Your task to perform on an android device: toggle data saver in the chrome app Image 0: 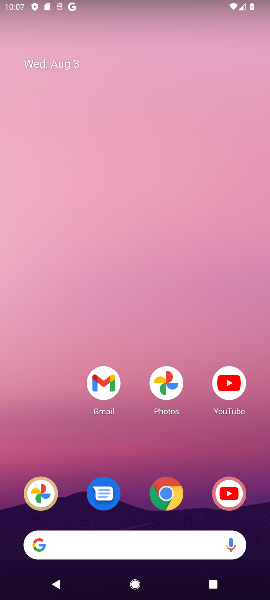
Step 0: press home button
Your task to perform on an android device: toggle data saver in the chrome app Image 1: 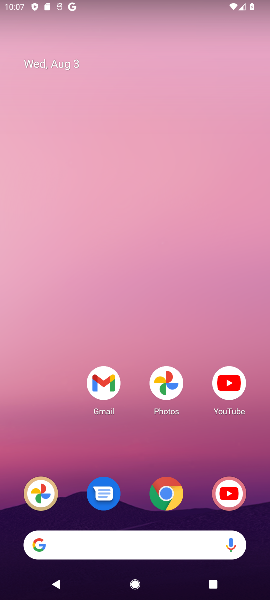
Step 1: click (169, 487)
Your task to perform on an android device: toggle data saver in the chrome app Image 2: 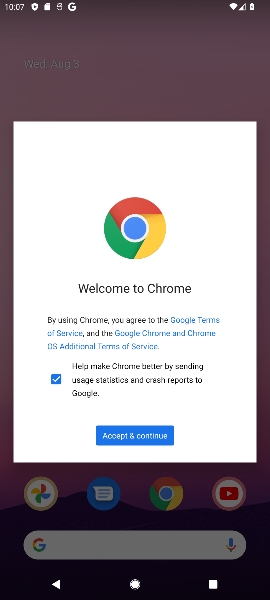
Step 2: click (132, 428)
Your task to perform on an android device: toggle data saver in the chrome app Image 3: 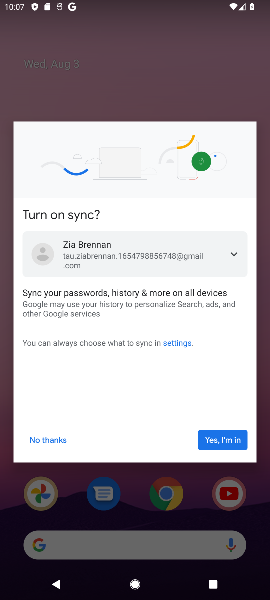
Step 3: click (224, 440)
Your task to perform on an android device: toggle data saver in the chrome app Image 4: 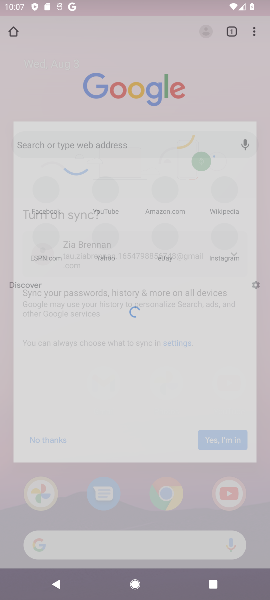
Step 4: click (225, 440)
Your task to perform on an android device: toggle data saver in the chrome app Image 5: 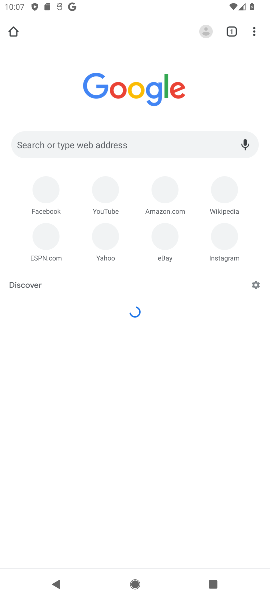
Step 5: click (225, 440)
Your task to perform on an android device: toggle data saver in the chrome app Image 6: 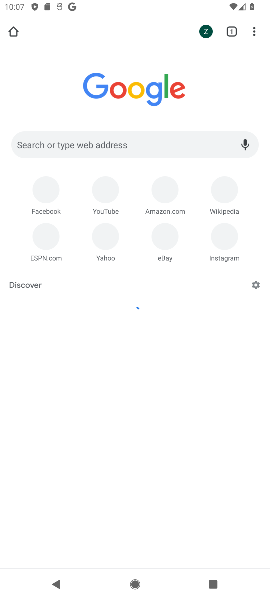
Step 6: click (256, 31)
Your task to perform on an android device: toggle data saver in the chrome app Image 7: 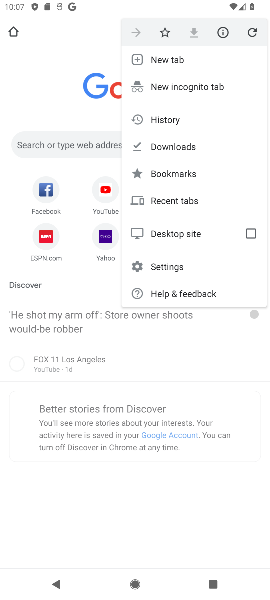
Step 7: click (181, 265)
Your task to perform on an android device: toggle data saver in the chrome app Image 8: 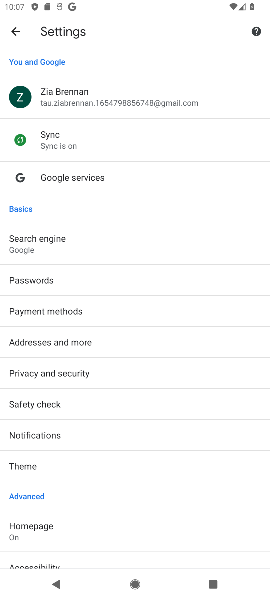
Step 8: drag from (78, 524) to (118, 59)
Your task to perform on an android device: toggle data saver in the chrome app Image 9: 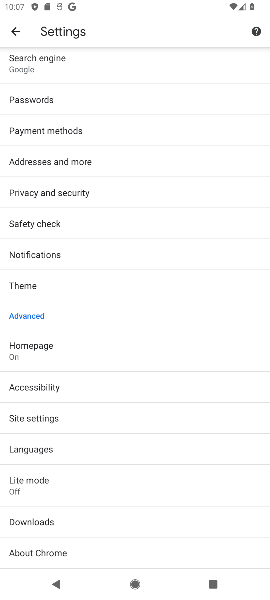
Step 9: click (52, 482)
Your task to perform on an android device: toggle data saver in the chrome app Image 10: 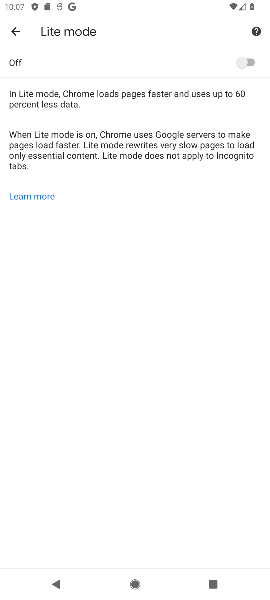
Step 10: click (243, 55)
Your task to perform on an android device: toggle data saver in the chrome app Image 11: 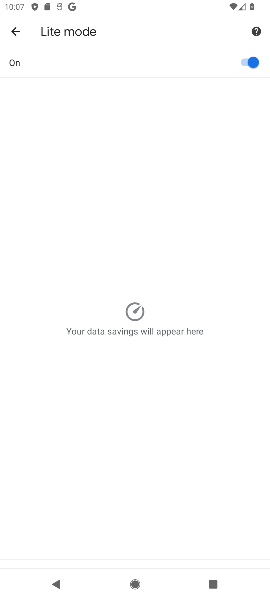
Step 11: task complete